Your task to perform on an android device: open the mobile data screen to see how much data has been used Image 0: 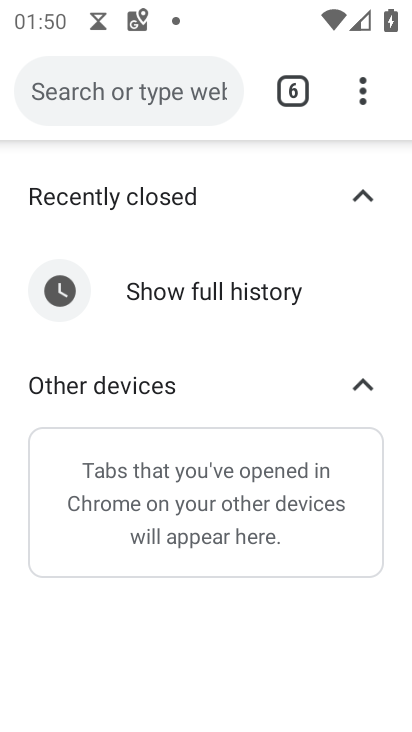
Step 0: press home button
Your task to perform on an android device: open the mobile data screen to see how much data has been used Image 1: 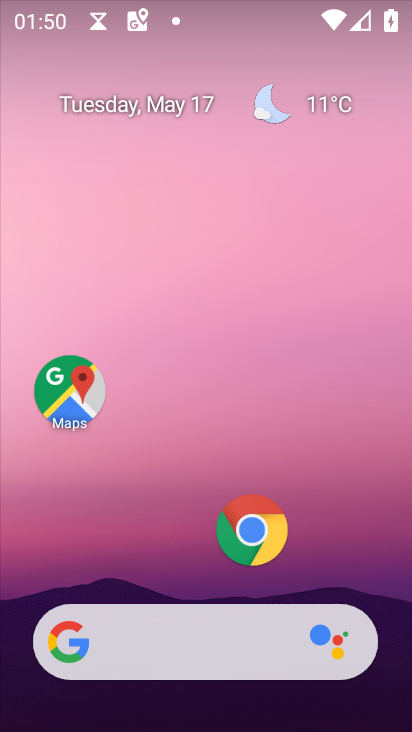
Step 1: click (304, 102)
Your task to perform on an android device: open the mobile data screen to see how much data has been used Image 2: 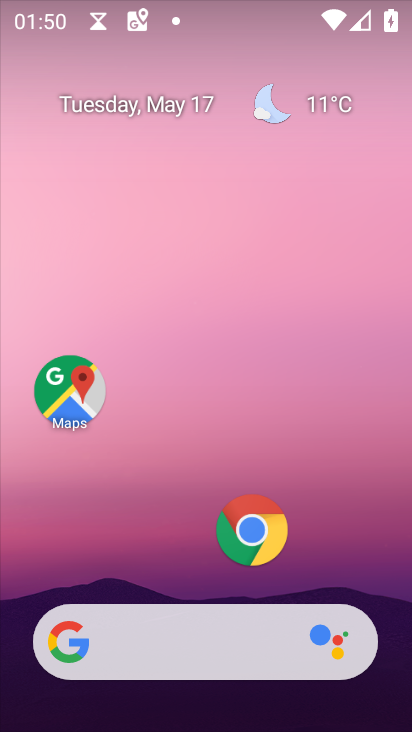
Step 2: drag from (345, 512) to (254, 11)
Your task to perform on an android device: open the mobile data screen to see how much data has been used Image 3: 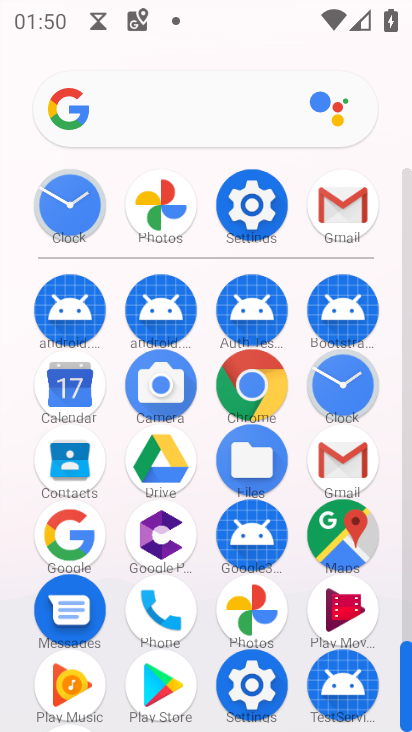
Step 3: click (244, 223)
Your task to perform on an android device: open the mobile data screen to see how much data has been used Image 4: 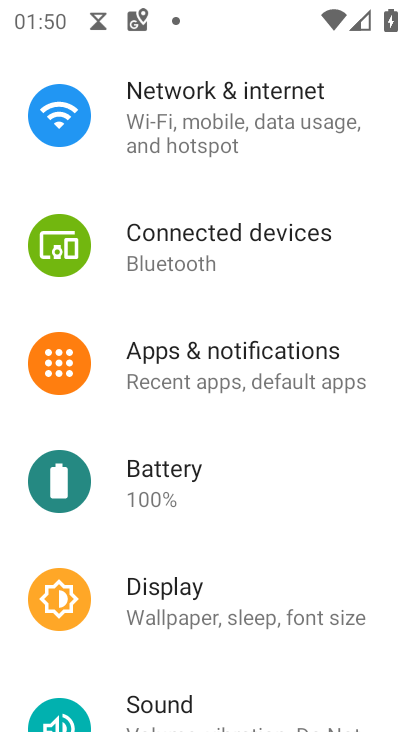
Step 4: click (196, 127)
Your task to perform on an android device: open the mobile data screen to see how much data has been used Image 5: 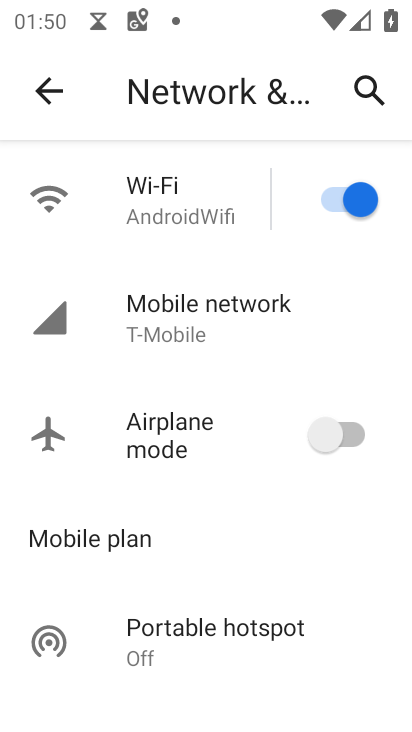
Step 5: click (182, 304)
Your task to perform on an android device: open the mobile data screen to see how much data has been used Image 6: 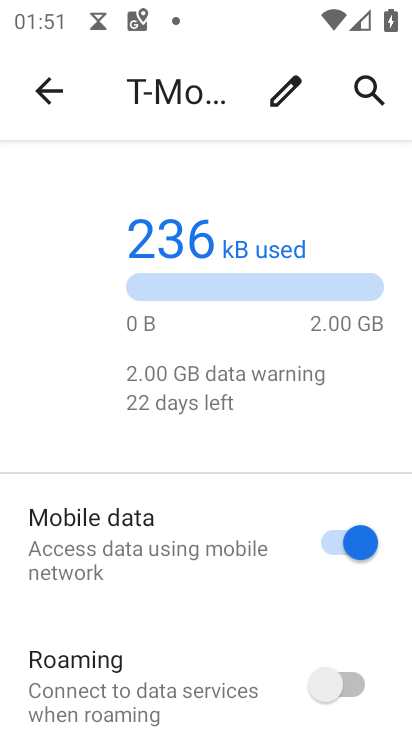
Step 6: task complete